Your task to perform on an android device: View the shopping cart on newegg.com. Add corsair k70 to the cart on newegg.com, then select checkout. Image 0: 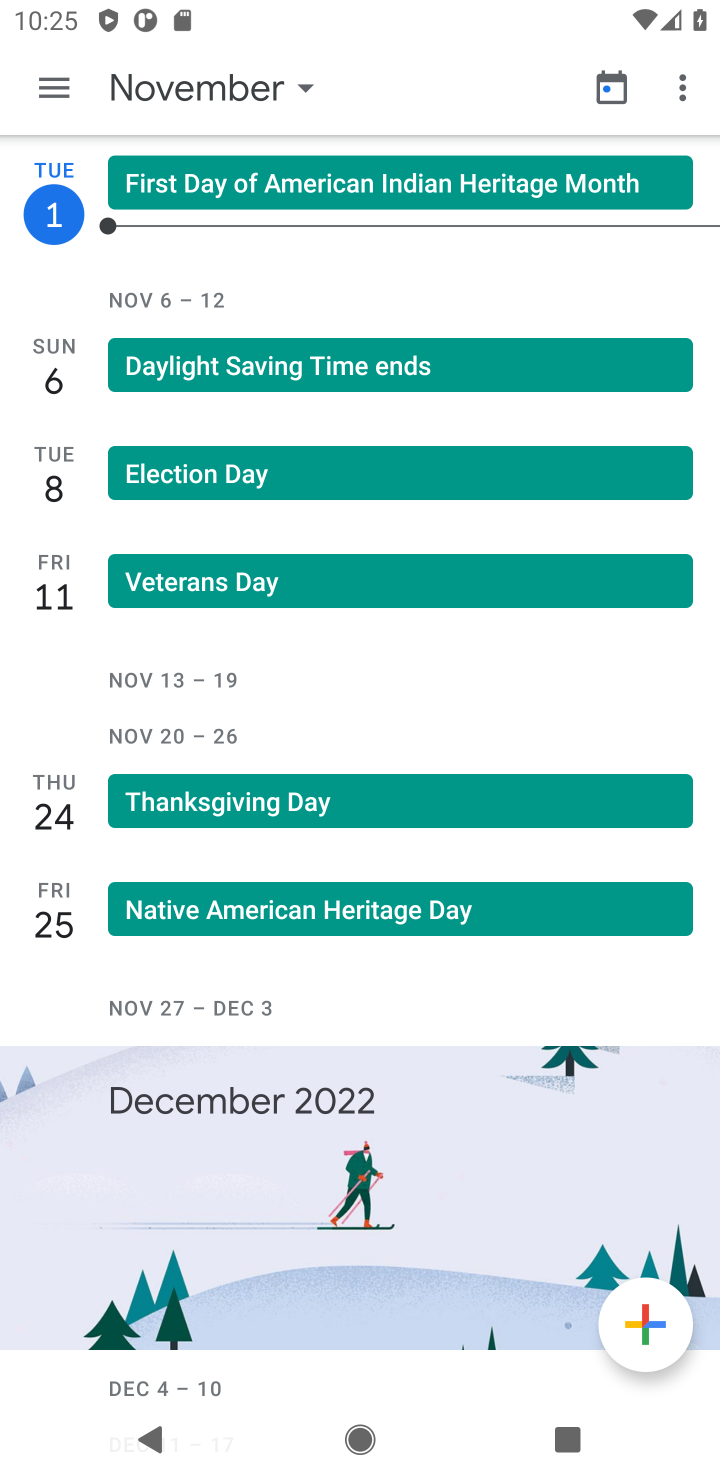
Step 0: press home button
Your task to perform on an android device: View the shopping cart on newegg.com. Add corsair k70 to the cart on newegg.com, then select checkout. Image 1: 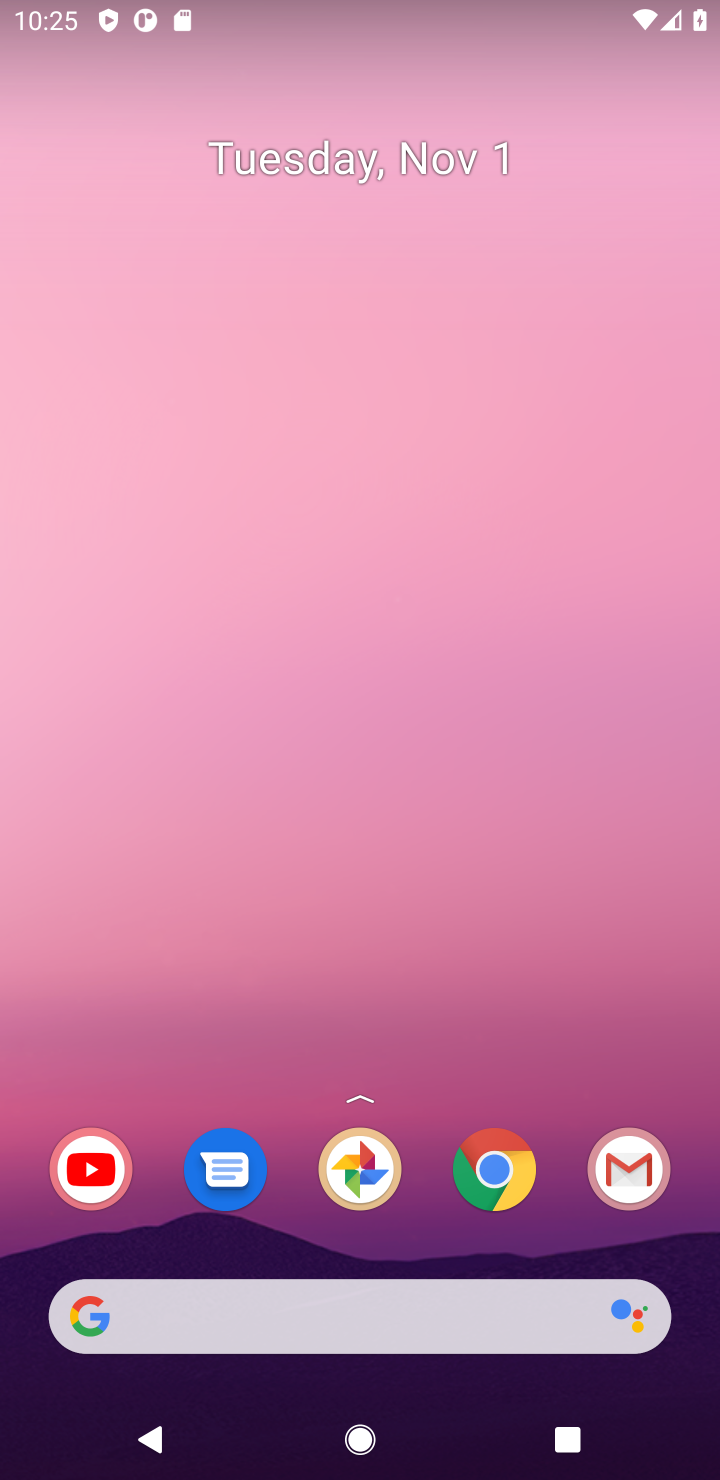
Step 1: click (496, 1171)
Your task to perform on an android device: View the shopping cart on newegg.com. Add corsair k70 to the cart on newegg.com, then select checkout. Image 2: 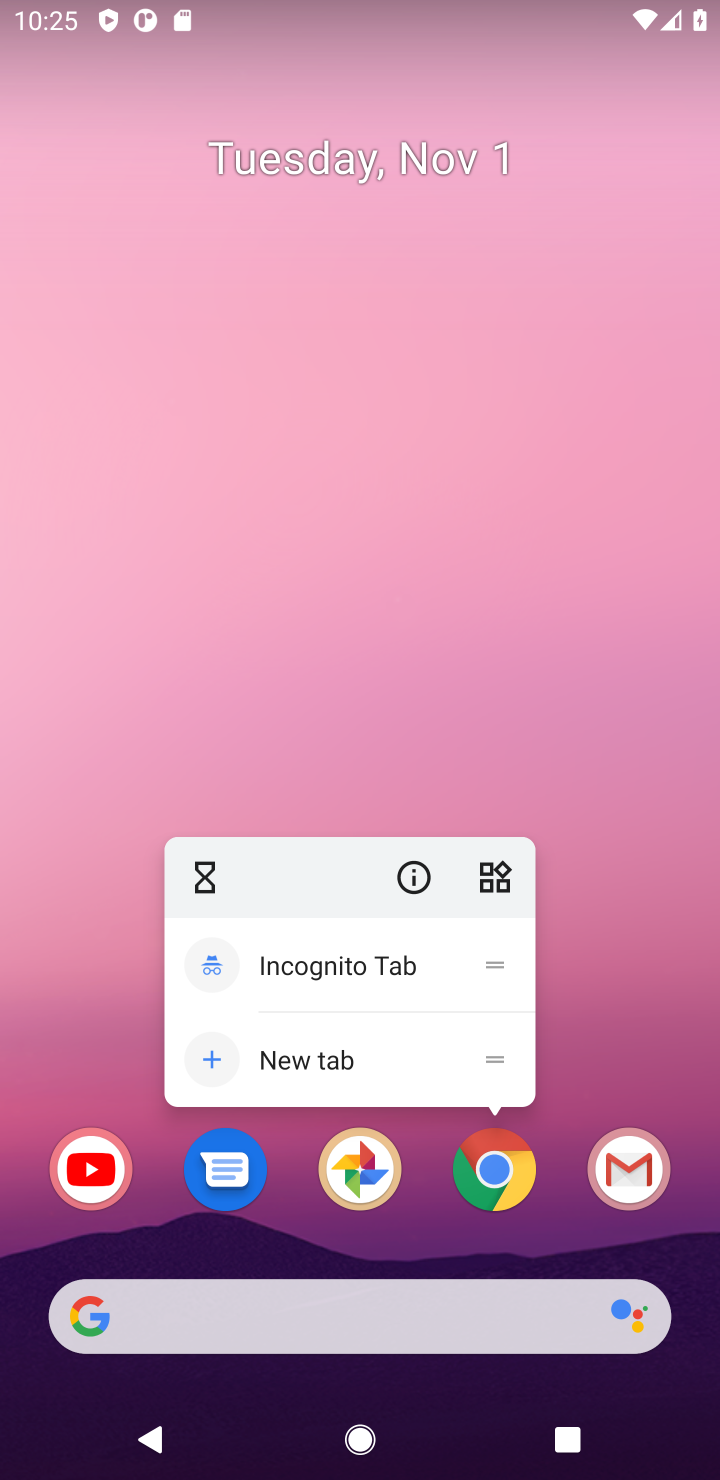
Step 2: click (496, 1171)
Your task to perform on an android device: View the shopping cart on newegg.com. Add corsair k70 to the cart on newegg.com, then select checkout. Image 3: 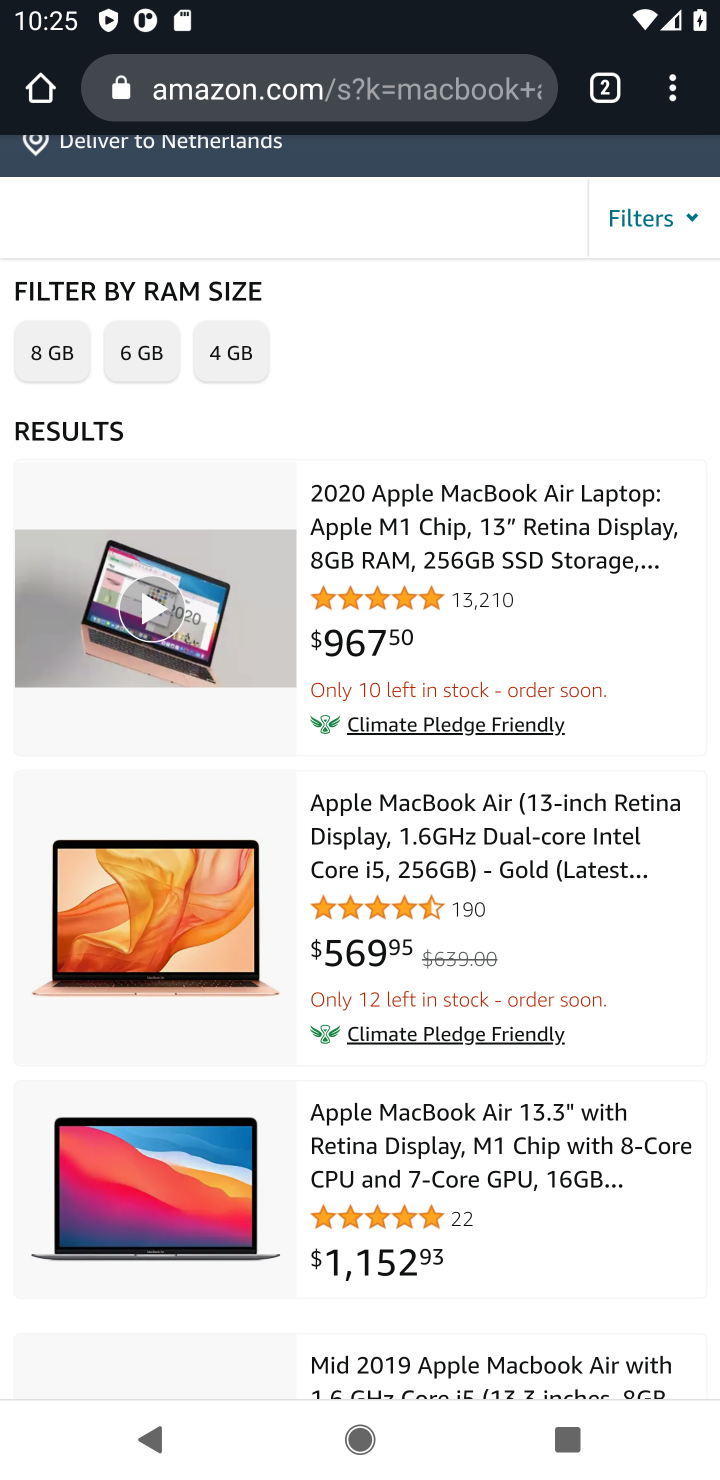
Step 3: click (439, 94)
Your task to perform on an android device: View the shopping cart on newegg.com. Add corsair k70 to the cart on newegg.com, then select checkout. Image 4: 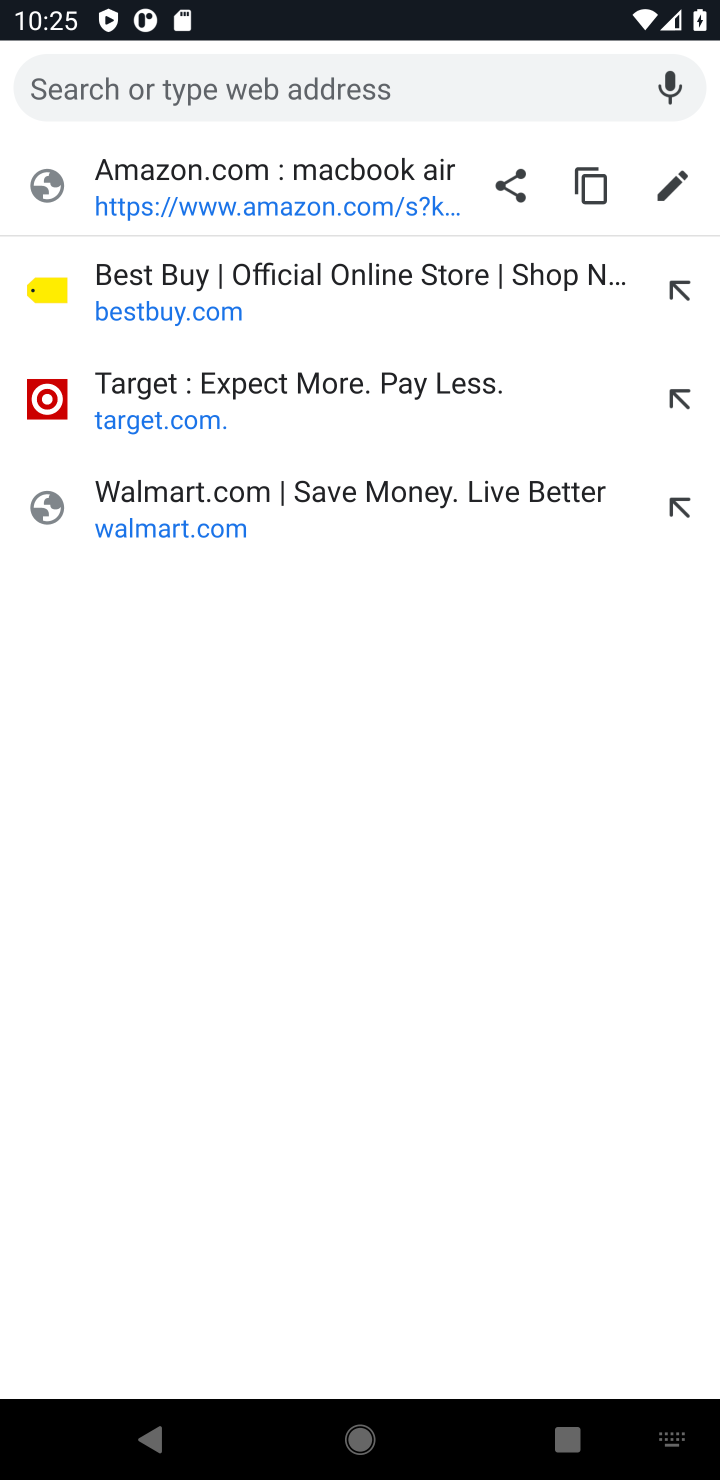
Step 4: type "newegg"
Your task to perform on an android device: View the shopping cart on newegg.com. Add corsair k70 to the cart on newegg.com, then select checkout. Image 5: 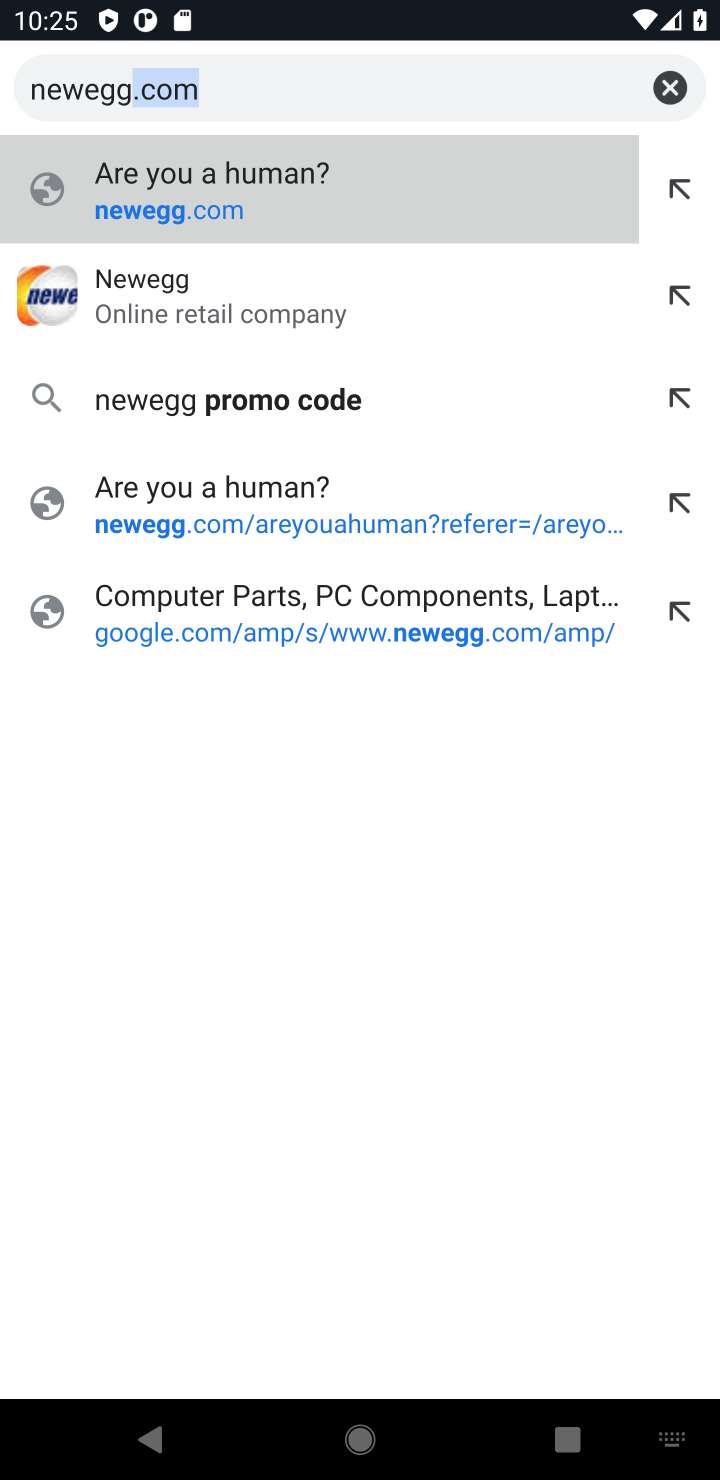
Step 5: click (352, 93)
Your task to perform on an android device: View the shopping cart on newegg.com. Add corsair k70 to the cart on newegg.com, then select checkout. Image 6: 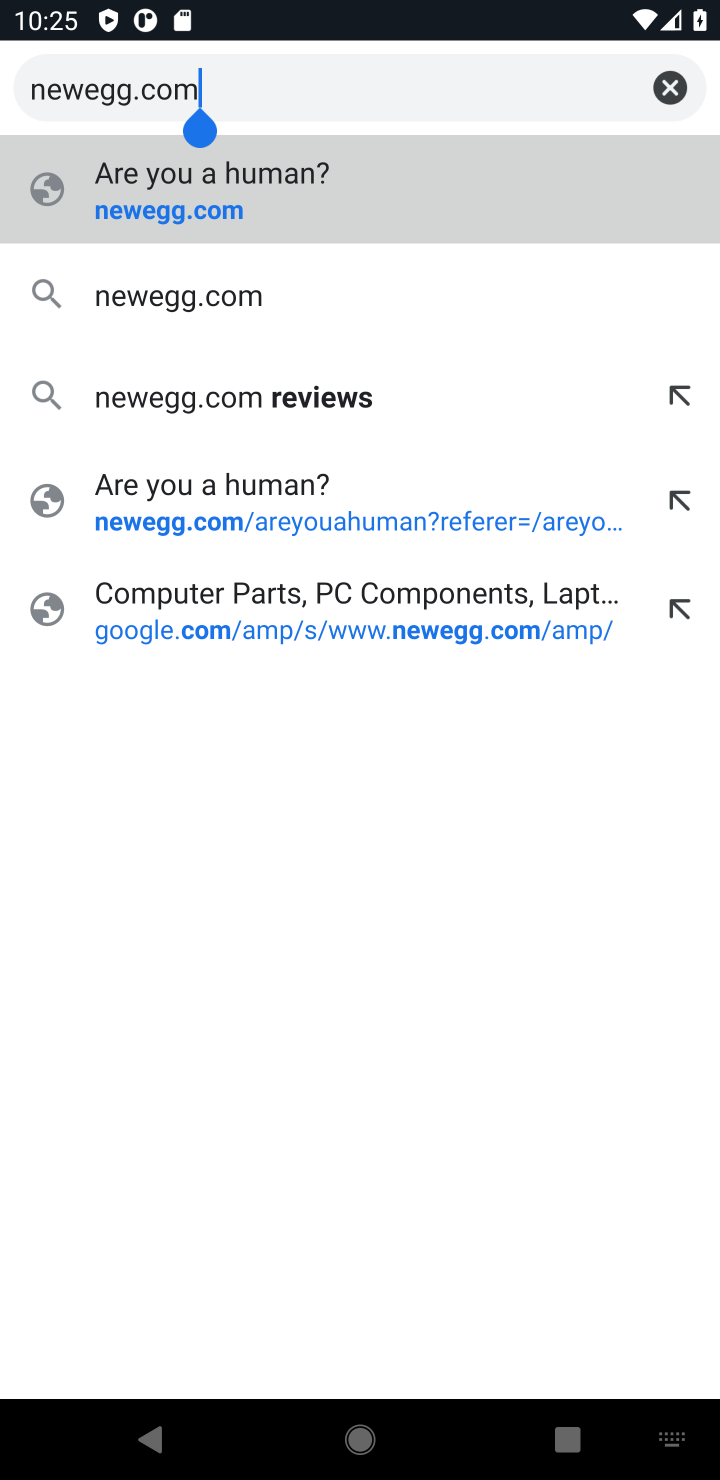
Step 6: click (164, 279)
Your task to perform on an android device: View the shopping cart on newegg.com. Add corsair k70 to the cart on newegg.com, then select checkout. Image 7: 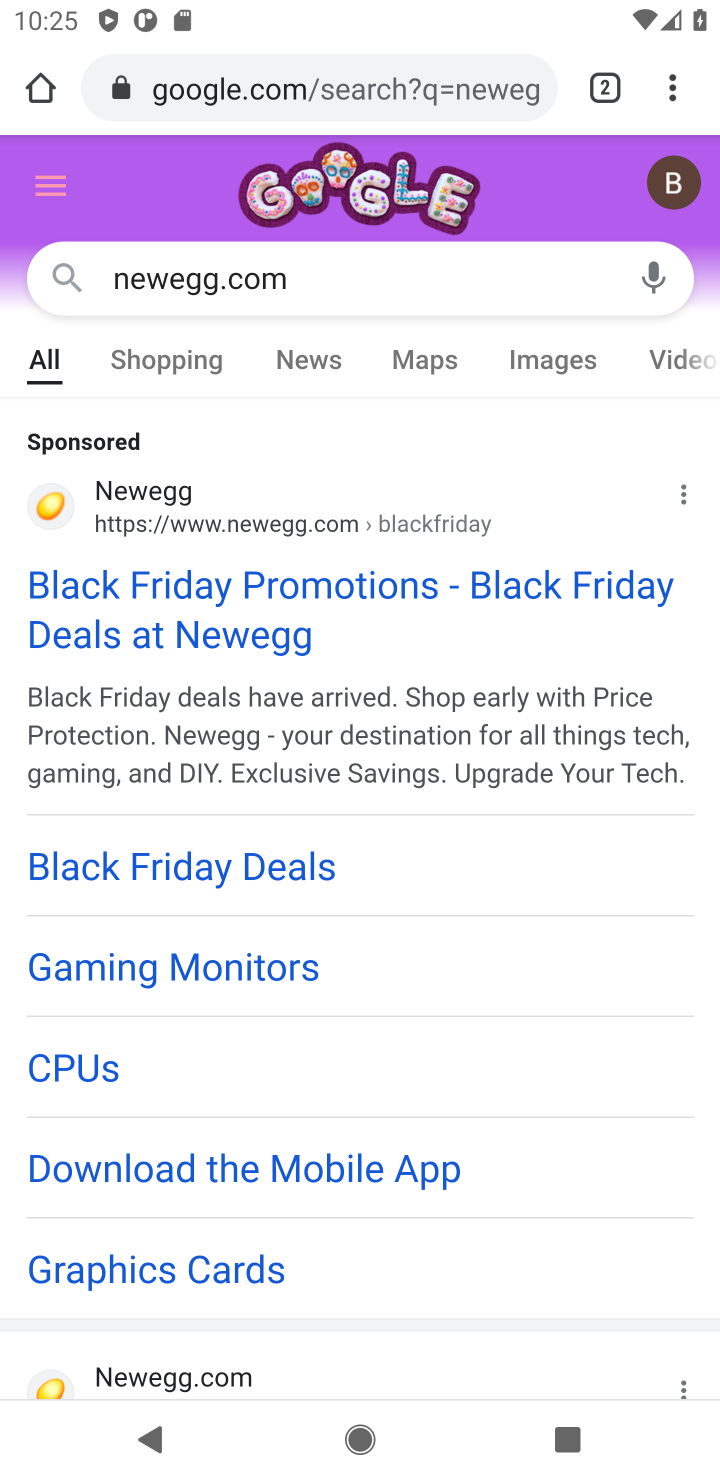
Step 7: drag from (349, 1068) to (386, 762)
Your task to perform on an android device: View the shopping cart on newegg.com. Add corsair k70 to the cart on newegg.com, then select checkout. Image 8: 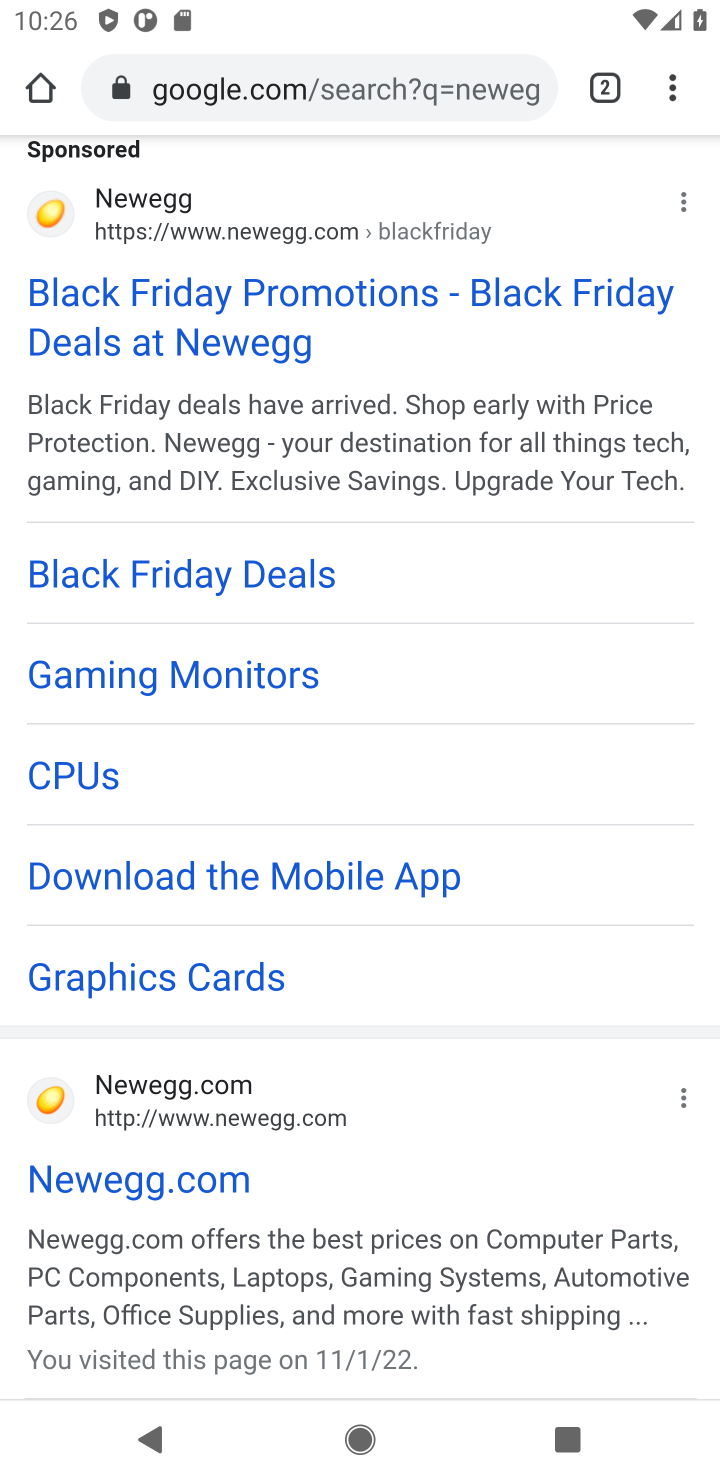
Step 8: click (197, 1092)
Your task to perform on an android device: View the shopping cart on newegg.com. Add corsair k70 to the cart on newegg.com, then select checkout. Image 9: 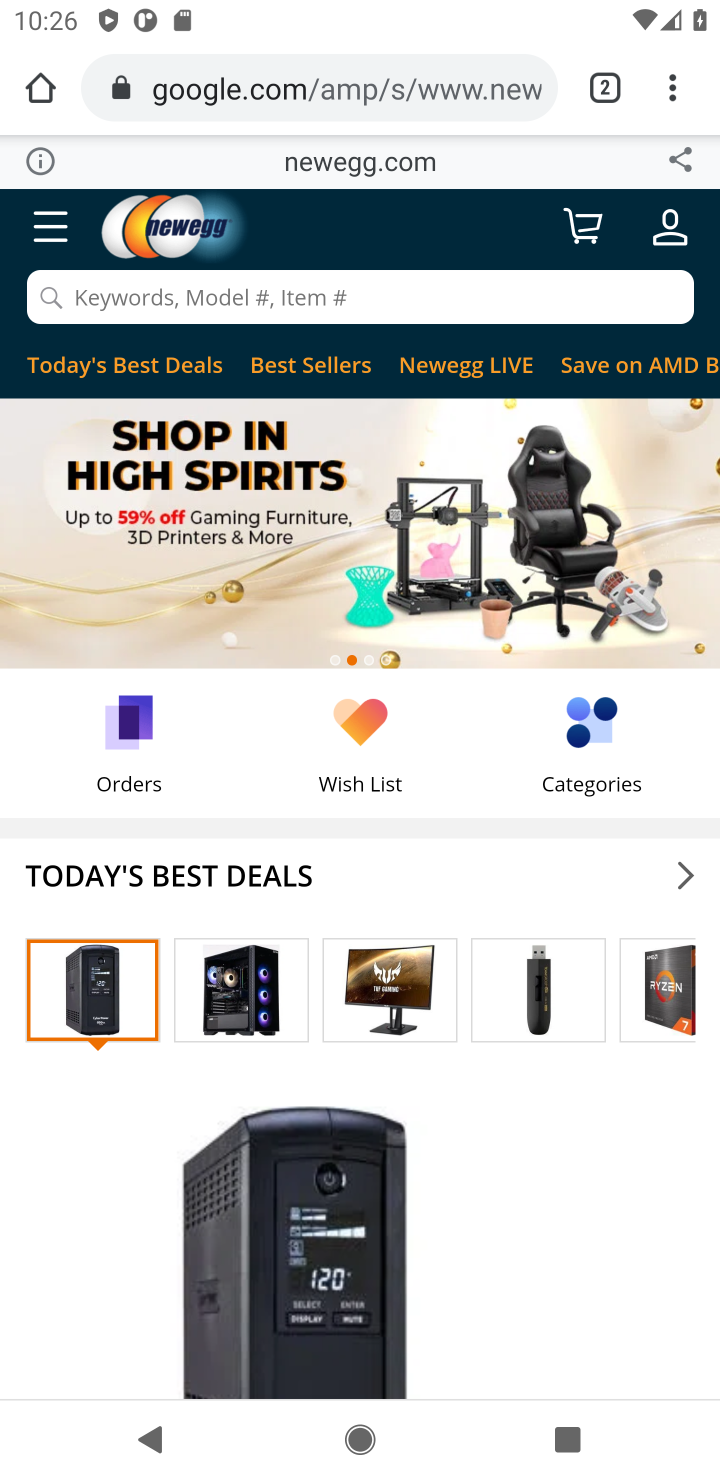
Step 9: click (581, 228)
Your task to perform on an android device: View the shopping cart on newegg.com. Add corsair k70 to the cart on newegg.com, then select checkout. Image 10: 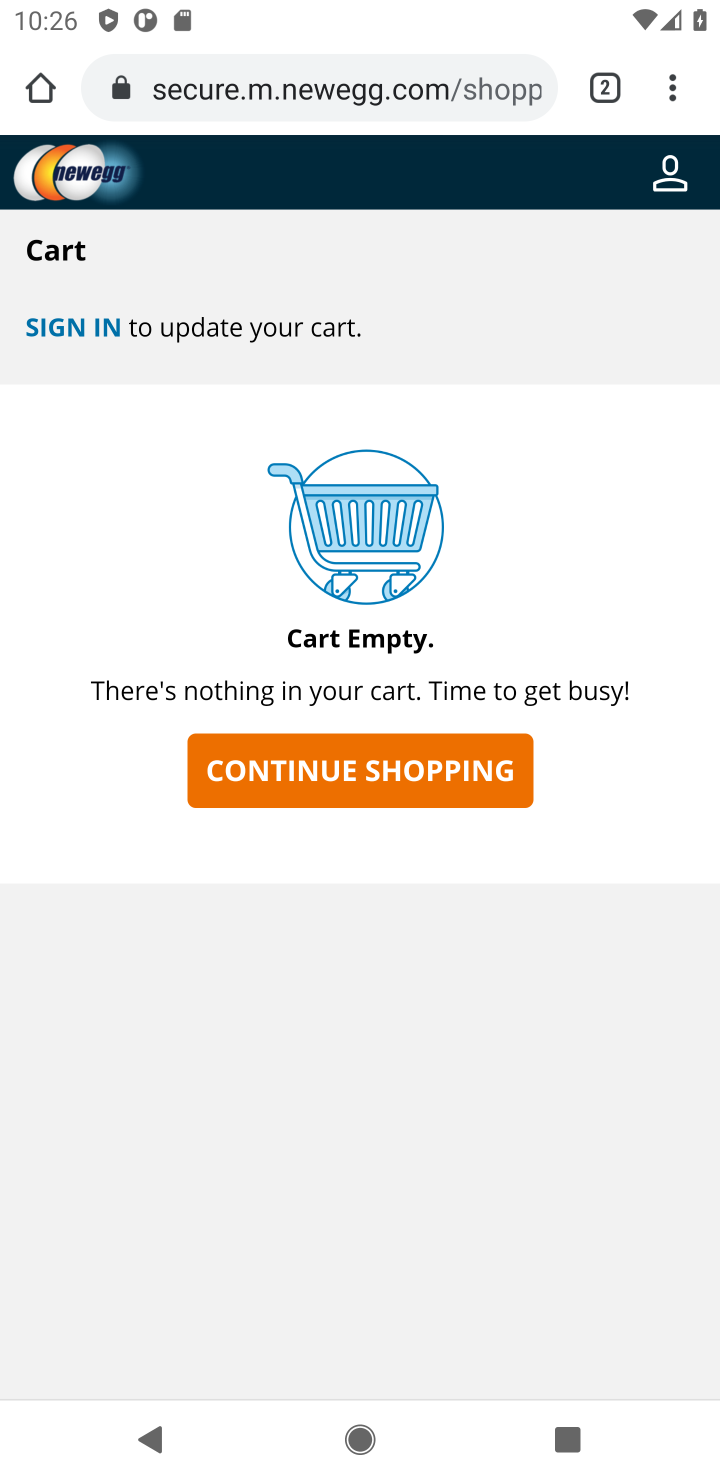
Step 10: press back button
Your task to perform on an android device: View the shopping cart on newegg.com. Add corsair k70 to the cart on newegg.com, then select checkout. Image 11: 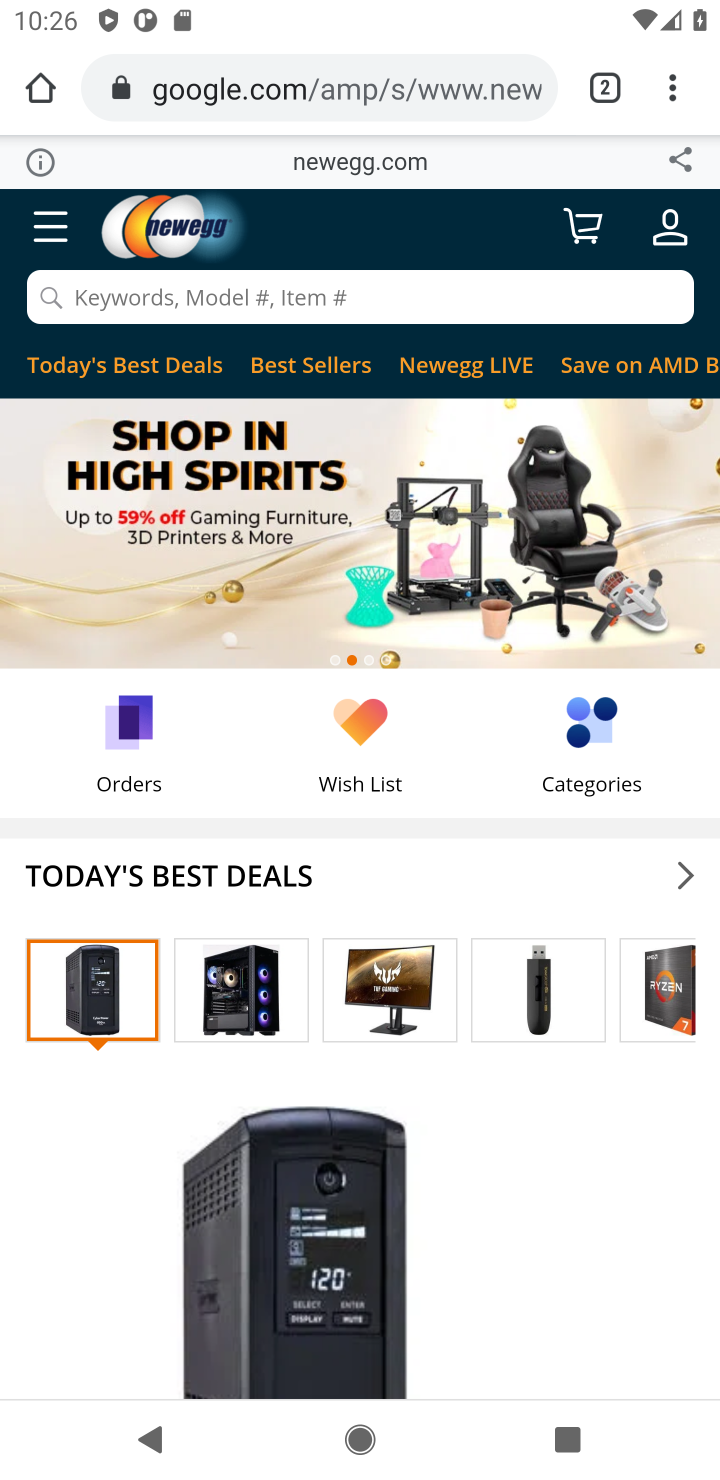
Step 11: click (304, 295)
Your task to perform on an android device: View the shopping cart on newegg.com. Add corsair k70 to the cart on newegg.com, then select checkout. Image 12: 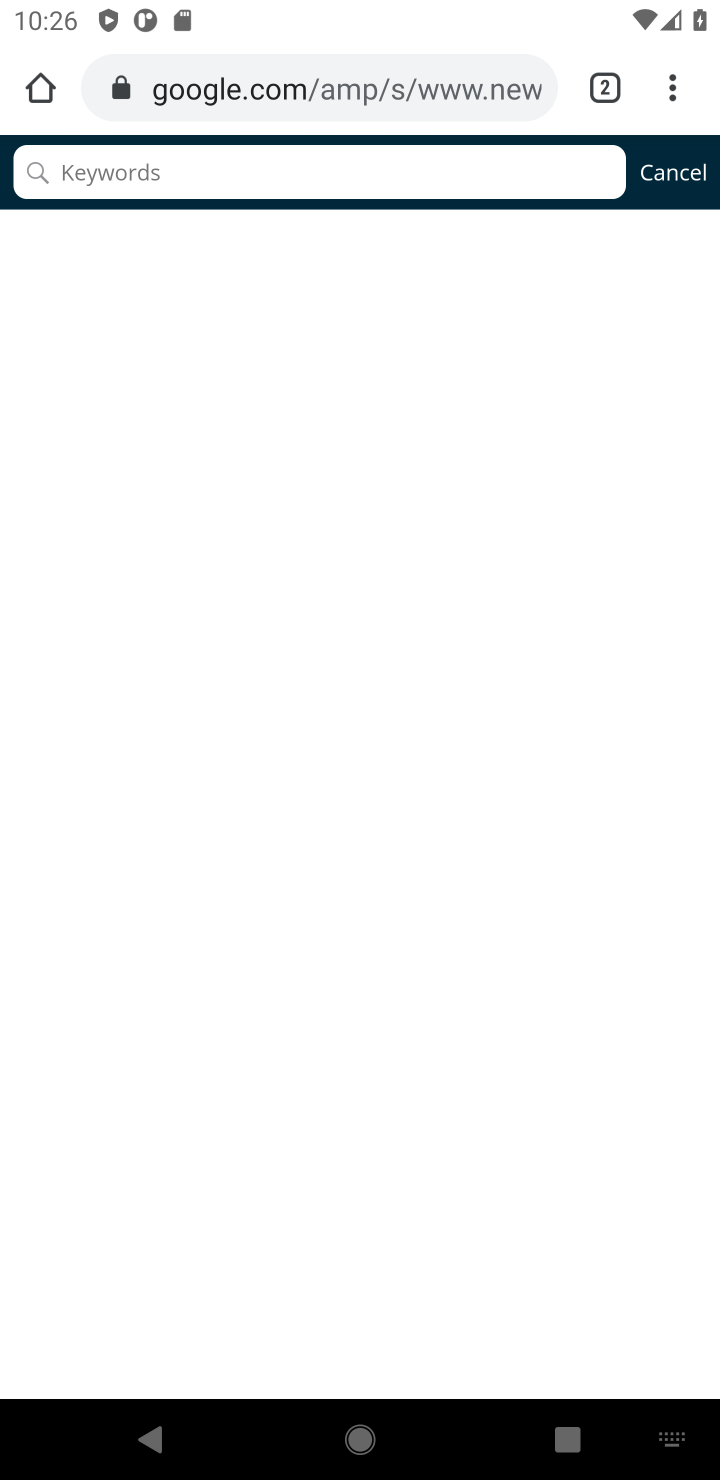
Step 12: type "corsair k70"
Your task to perform on an android device: View the shopping cart on newegg.com. Add corsair k70 to the cart on newegg.com, then select checkout. Image 13: 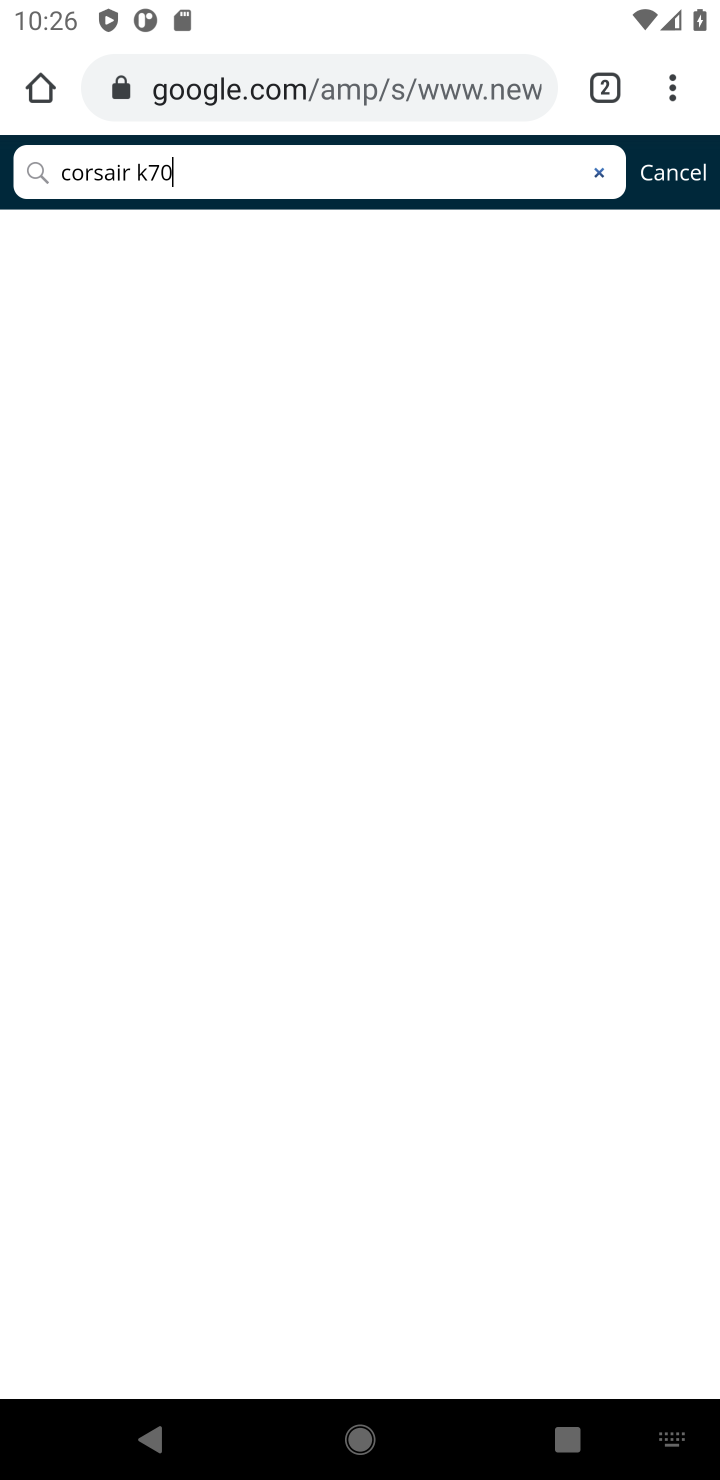
Step 13: click (611, 277)
Your task to perform on an android device: View the shopping cart on newegg.com. Add corsair k70 to the cart on newegg.com, then select checkout. Image 14: 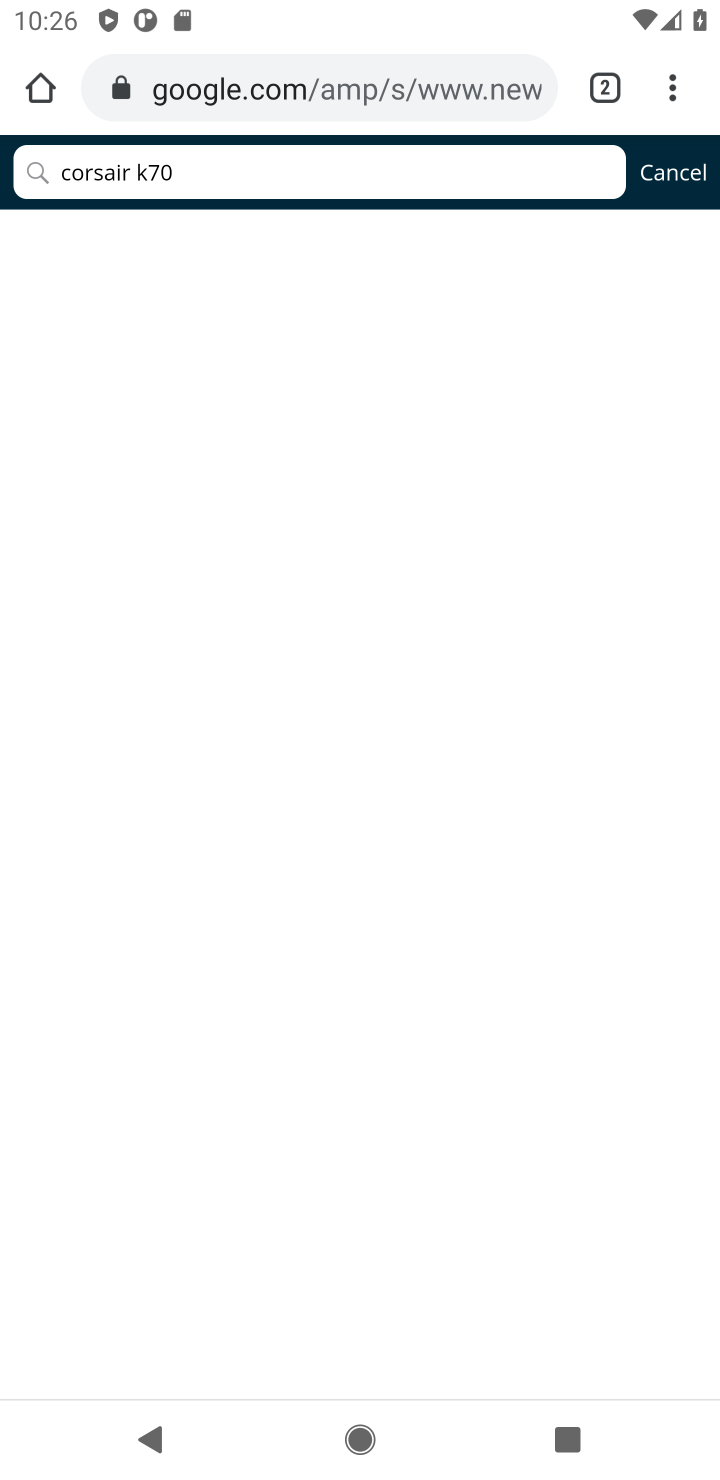
Step 14: click (683, 179)
Your task to perform on an android device: View the shopping cart on newegg.com. Add corsair k70 to the cart on newegg.com, then select checkout. Image 15: 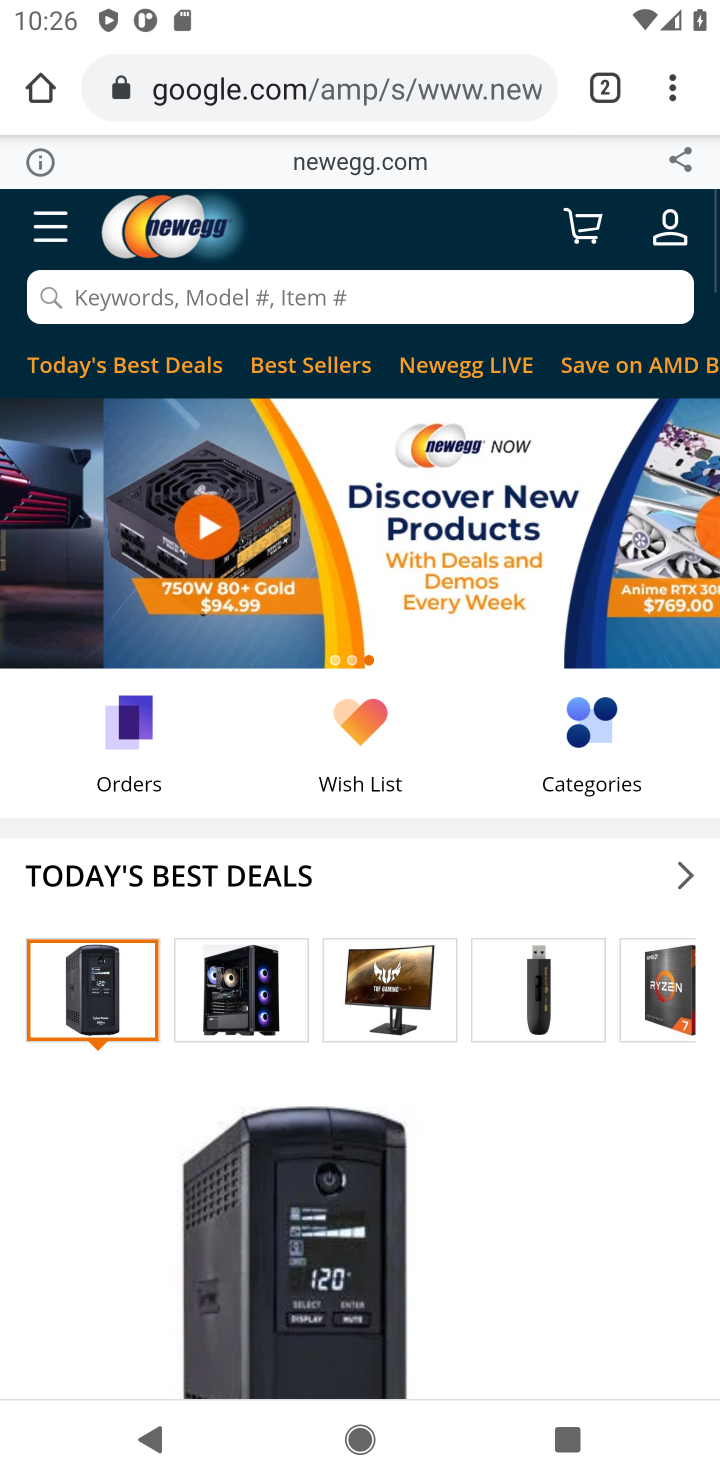
Step 15: click (433, 297)
Your task to perform on an android device: View the shopping cart on newegg.com. Add corsair k70 to the cart on newegg.com, then select checkout. Image 16: 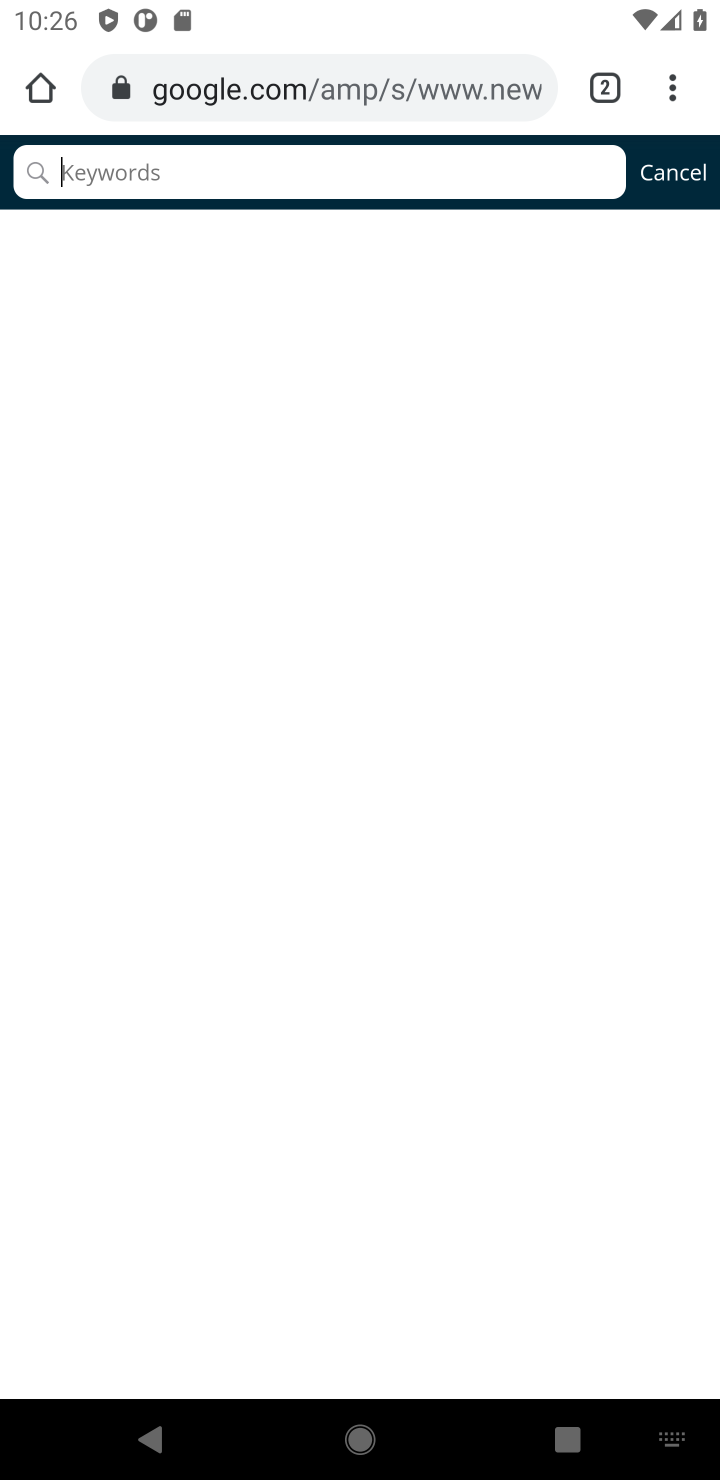
Step 16: type "corsair k70"
Your task to perform on an android device: View the shopping cart on newegg.com. Add corsair k70 to the cart on newegg.com, then select checkout. Image 17: 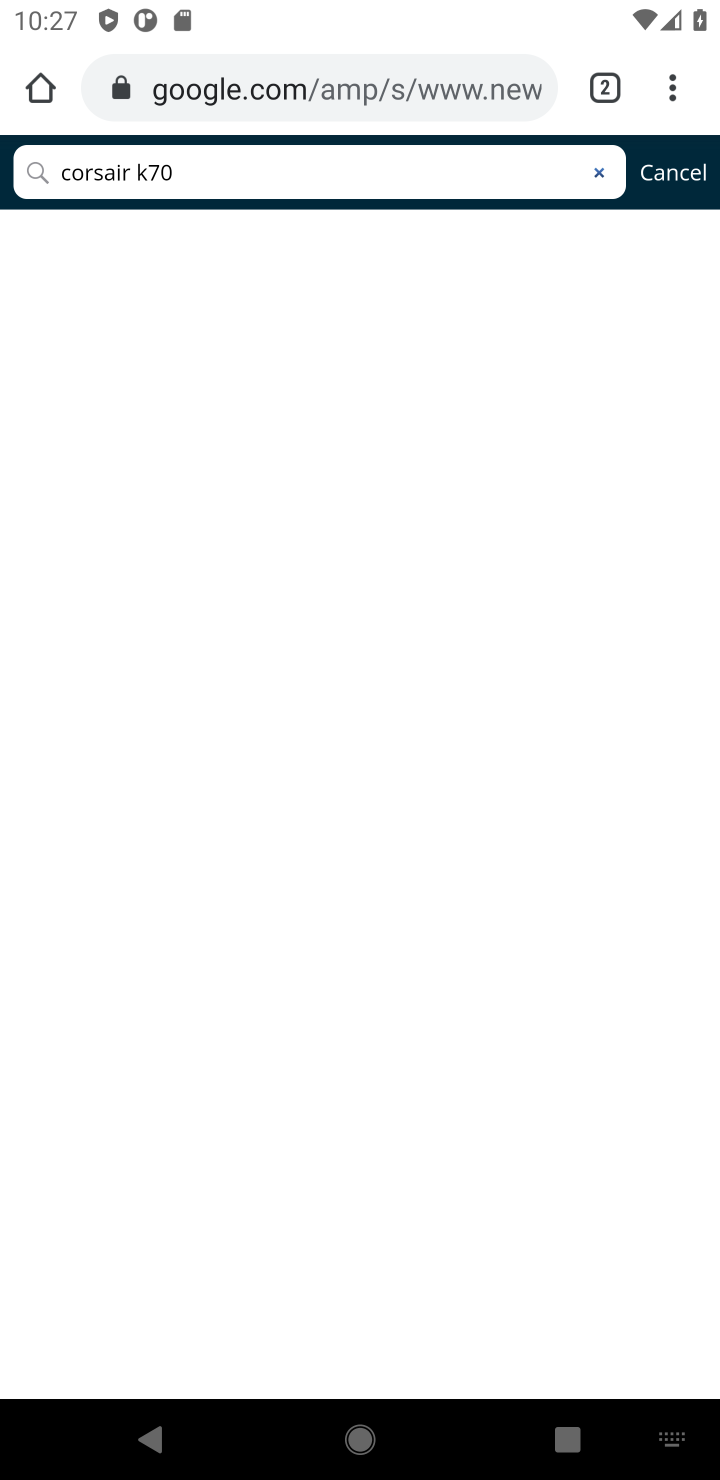
Step 17: click (596, 551)
Your task to perform on an android device: View the shopping cart on newegg.com. Add corsair k70 to the cart on newegg.com, then select checkout. Image 18: 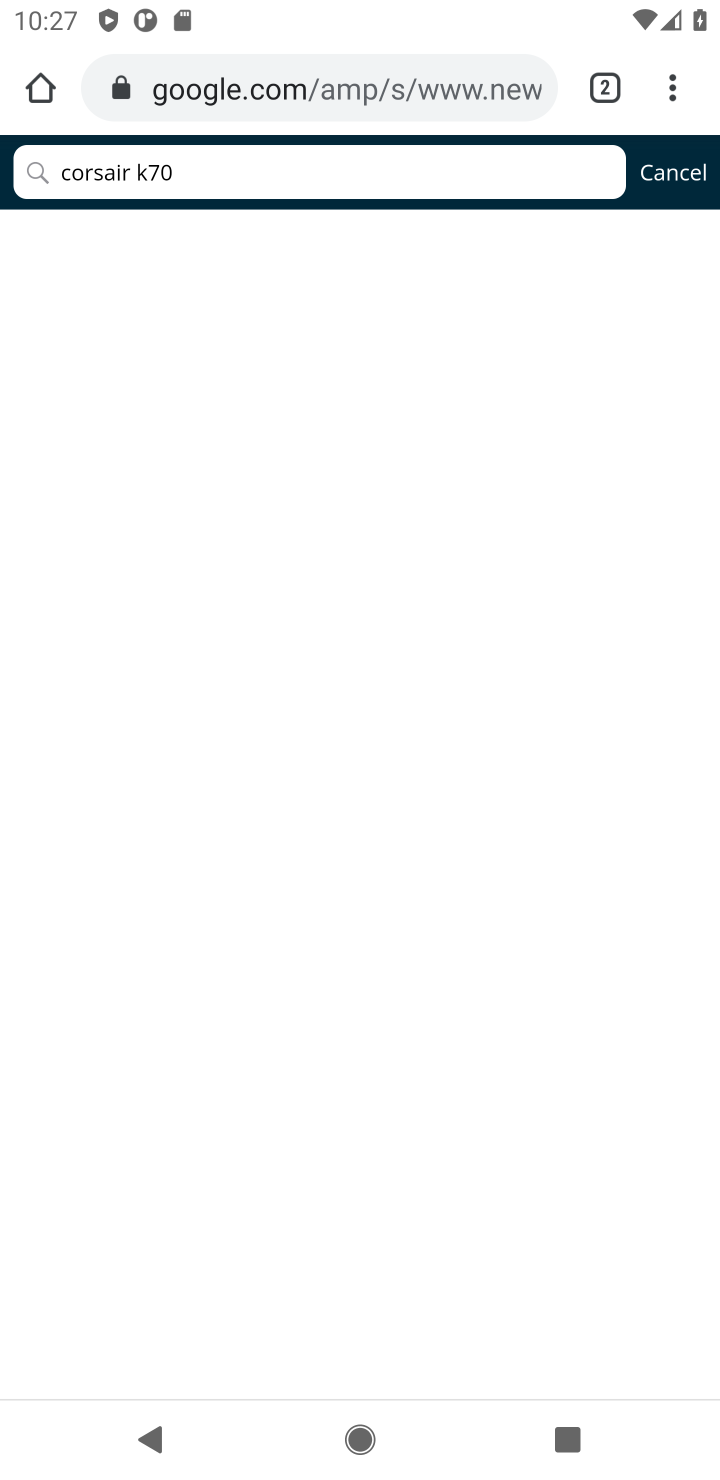
Step 18: task complete